Your task to perform on an android device: Show me popular games on the Play Store Image 0: 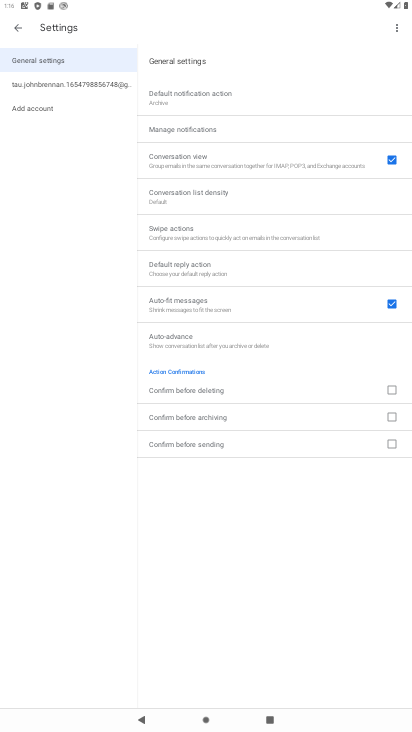
Step 0: press home button
Your task to perform on an android device: Show me popular games on the Play Store Image 1: 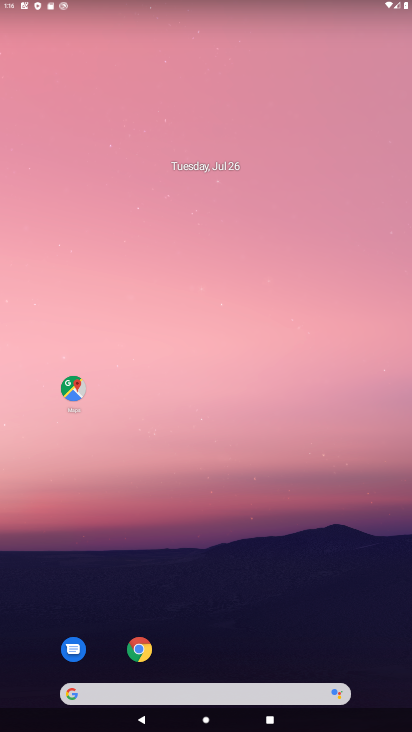
Step 1: drag from (245, 657) to (289, 39)
Your task to perform on an android device: Show me popular games on the Play Store Image 2: 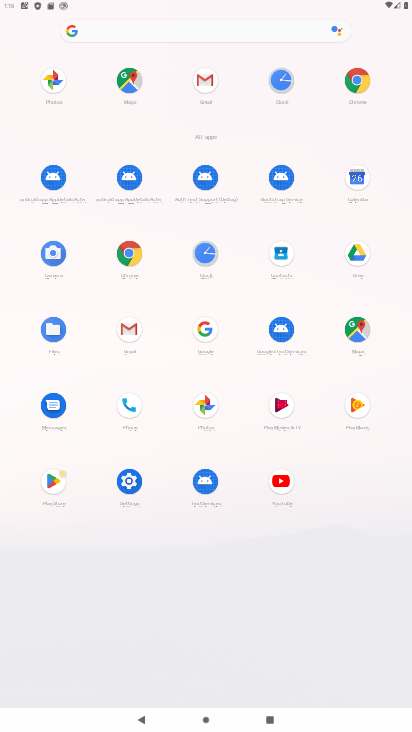
Step 2: click (52, 475)
Your task to perform on an android device: Show me popular games on the Play Store Image 3: 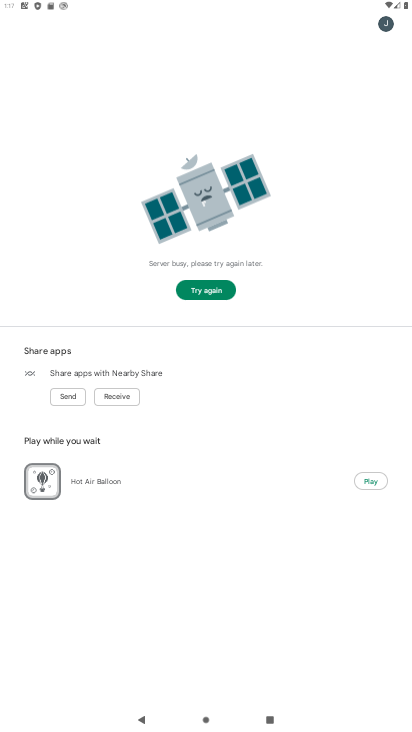
Step 3: click (200, 286)
Your task to perform on an android device: Show me popular games on the Play Store Image 4: 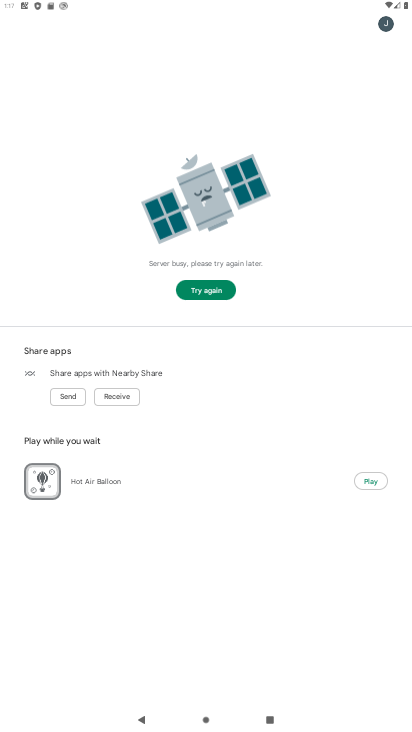
Step 4: click (213, 291)
Your task to perform on an android device: Show me popular games on the Play Store Image 5: 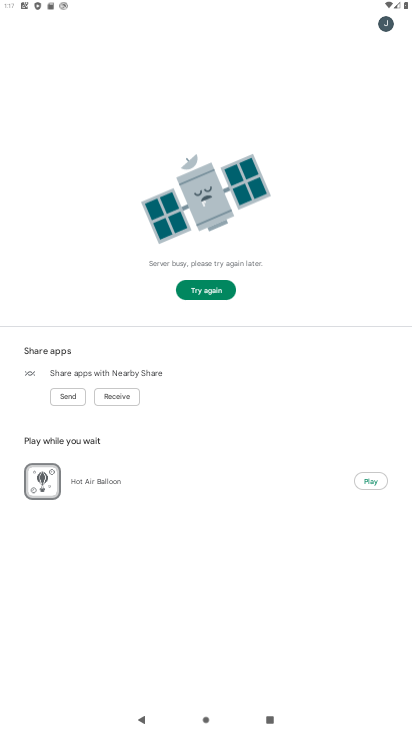
Step 5: task complete